Your task to perform on an android device: Clear the shopping cart on ebay.com. Search for "logitech g933" on ebay.com, select the first entry, and add it to the cart. Image 0: 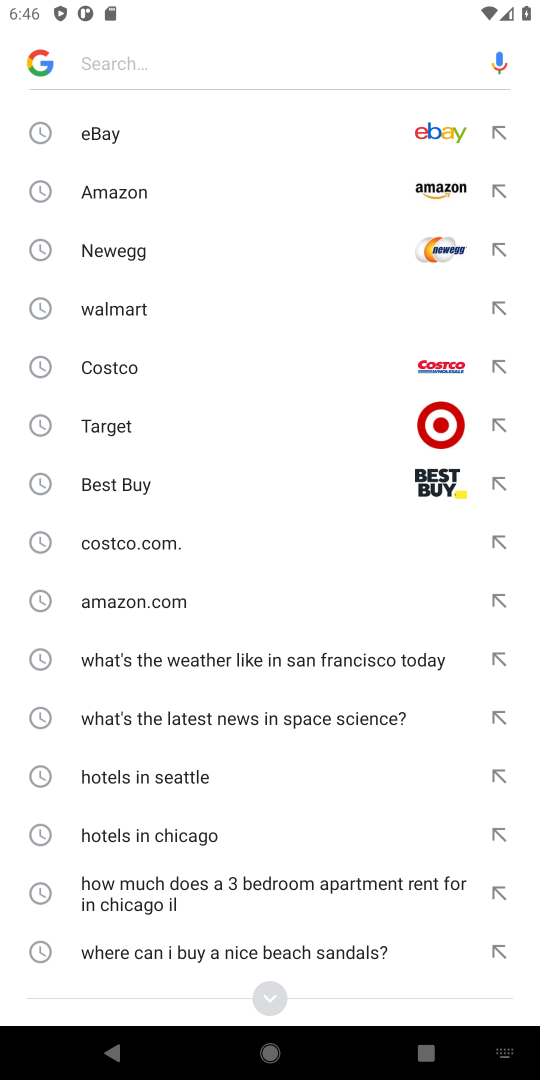
Step 0: click (99, 139)
Your task to perform on an android device: Clear the shopping cart on ebay.com. Search for "logitech g933" on ebay.com, select the first entry, and add it to the cart. Image 1: 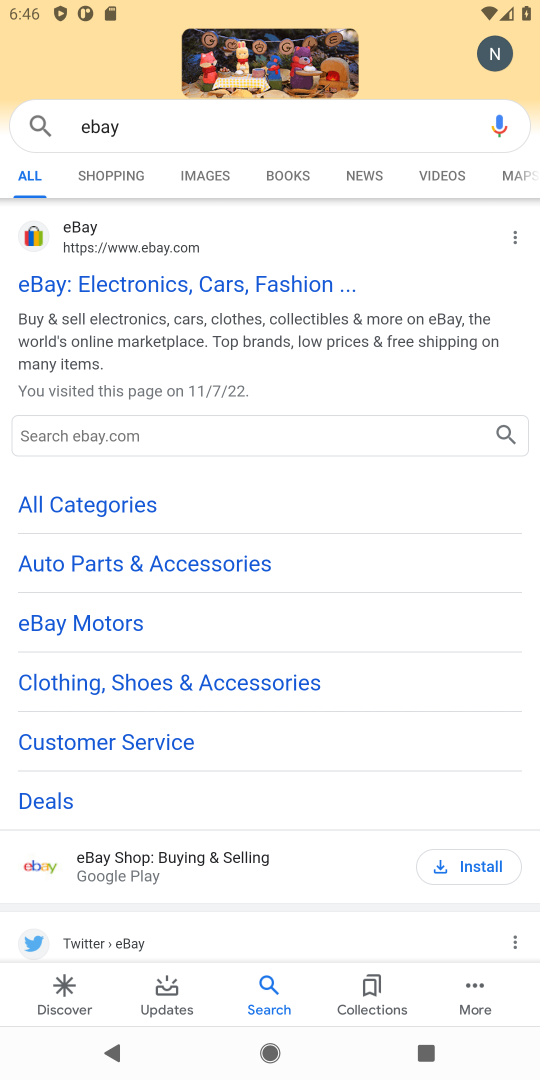
Step 1: click (103, 287)
Your task to perform on an android device: Clear the shopping cart on ebay.com. Search for "logitech g933" on ebay.com, select the first entry, and add it to the cart. Image 2: 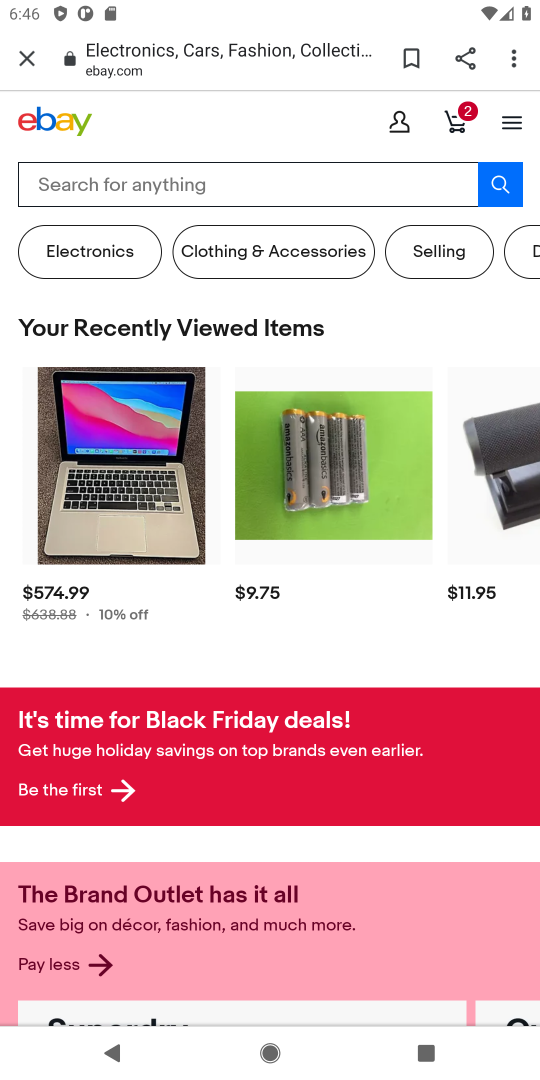
Step 2: click (452, 124)
Your task to perform on an android device: Clear the shopping cart on ebay.com. Search for "logitech g933" on ebay.com, select the first entry, and add it to the cart. Image 3: 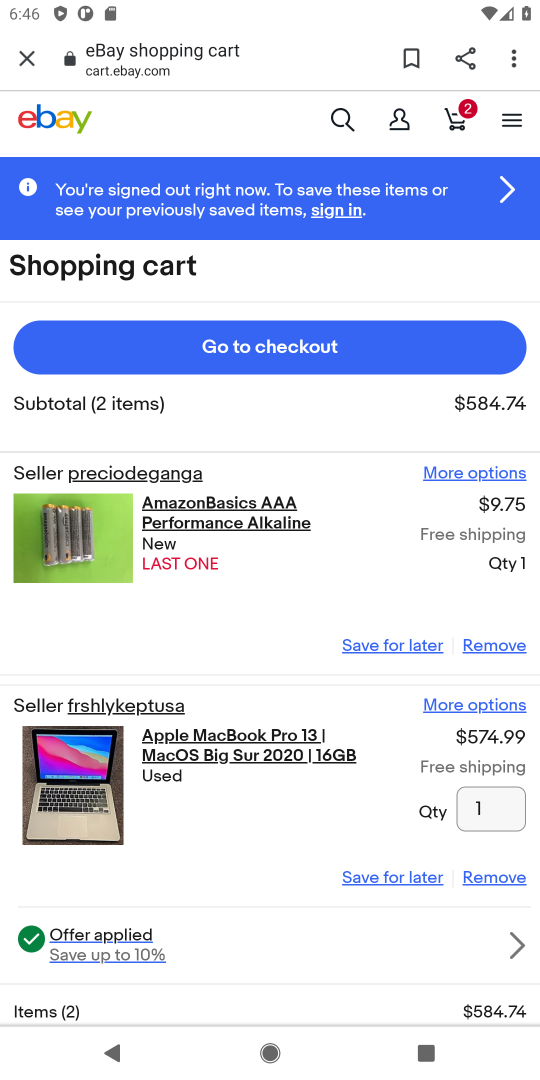
Step 3: click (477, 648)
Your task to perform on an android device: Clear the shopping cart on ebay.com. Search for "logitech g933" on ebay.com, select the first entry, and add it to the cart. Image 4: 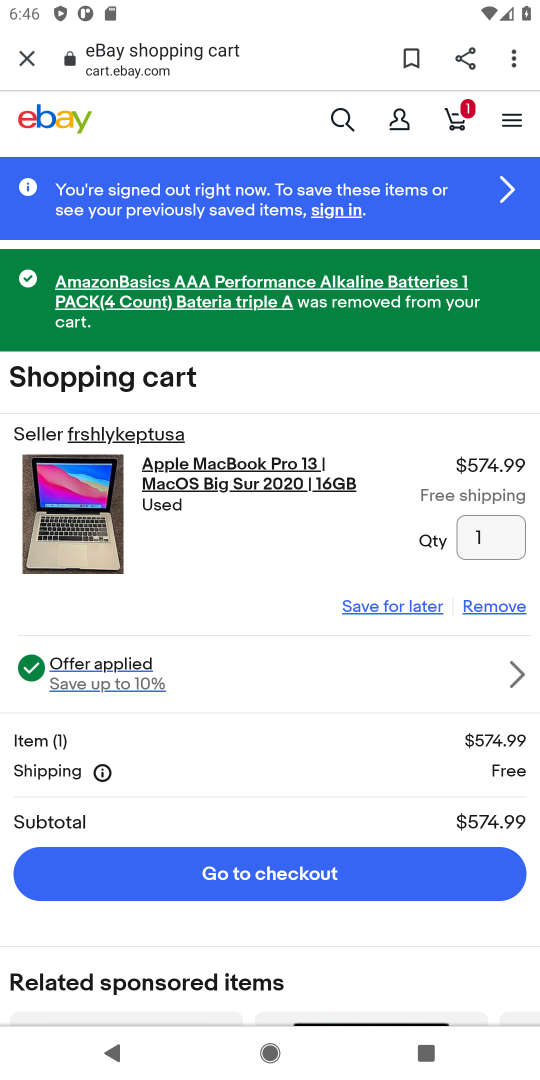
Step 4: click (477, 608)
Your task to perform on an android device: Clear the shopping cart on ebay.com. Search for "logitech g933" on ebay.com, select the first entry, and add it to the cart. Image 5: 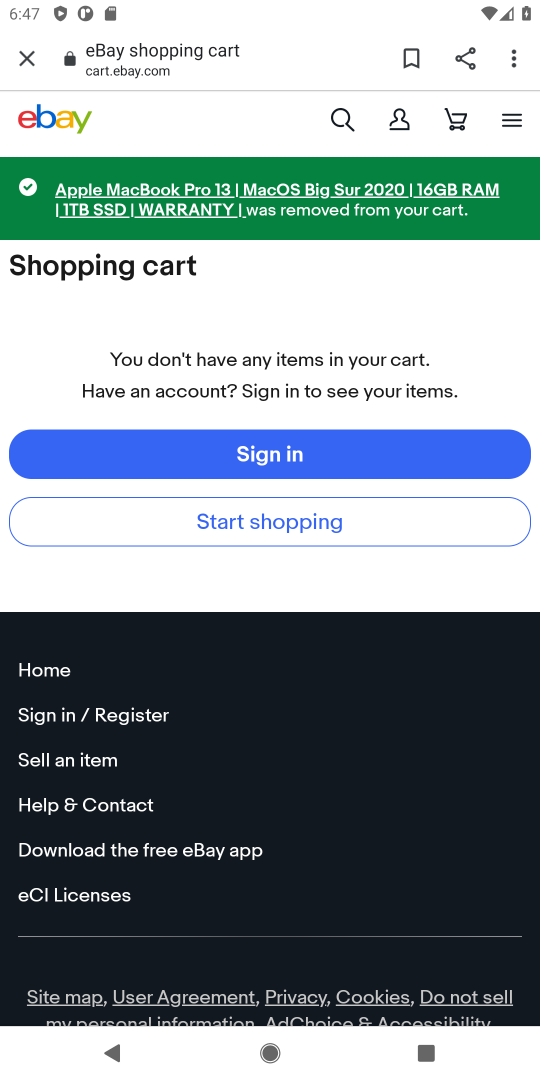
Step 5: click (335, 114)
Your task to perform on an android device: Clear the shopping cart on ebay.com. Search for "logitech g933" on ebay.com, select the first entry, and add it to the cart. Image 6: 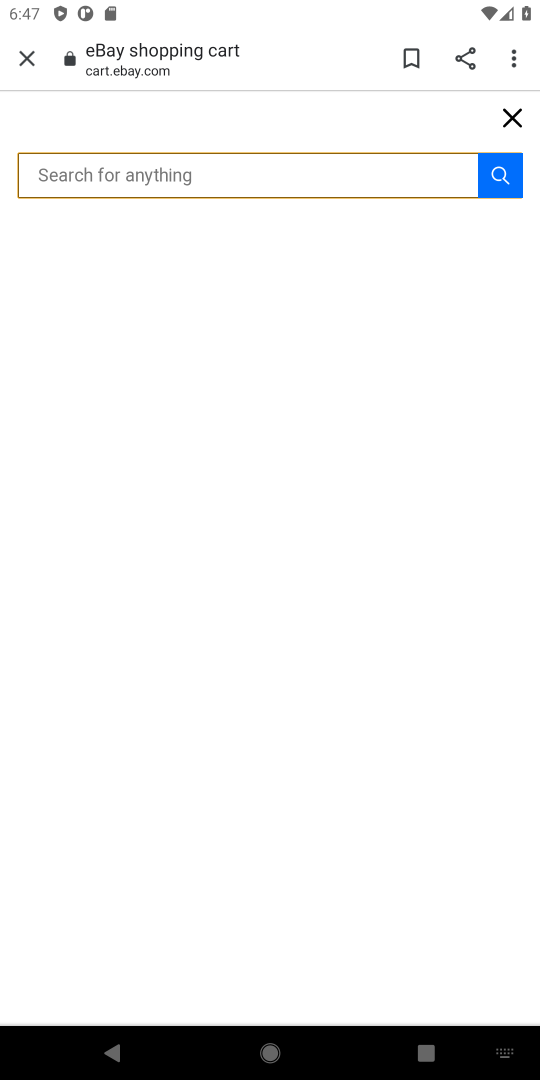
Step 6: type "logitech g933"
Your task to perform on an android device: Clear the shopping cart on ebay.com. Search for "logitech g933" on ebay.com, select the first entry, and add it to the cart. Image 7: 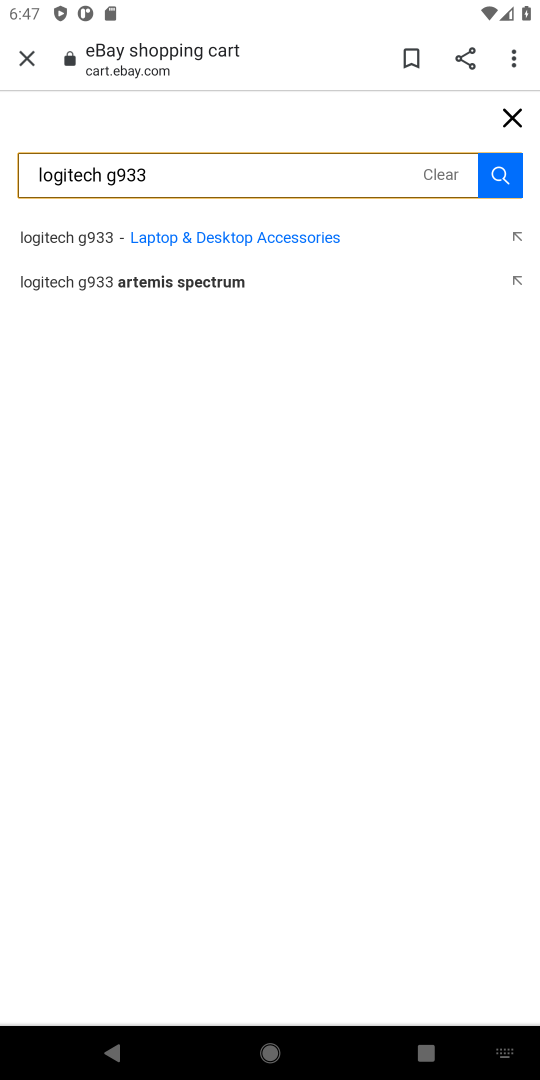
Step 7: click (62, 239)
Your task to perform on an android device: Clear the shopping cart on ebay.com. Search for "logitech g933" on ebay.com, select the first entry, and add it to the cart. Image 8: 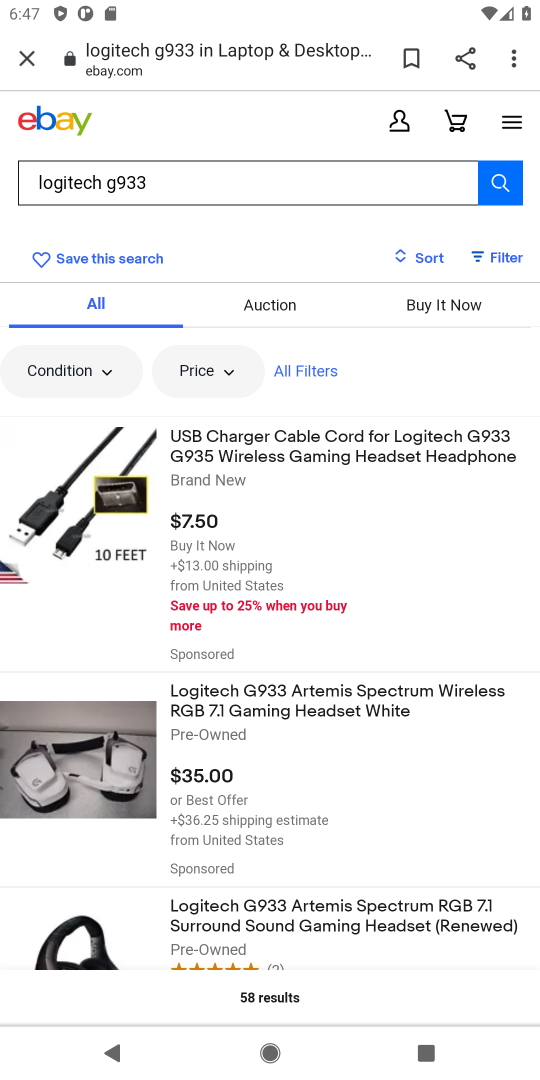
Step 8: click (122, 536)
Your task to perform on an android device: Clear the shopping cart on ebay.com. Search for "logitech g933" on ebay.com, select the first entry, and add it to the cart. Image 9: 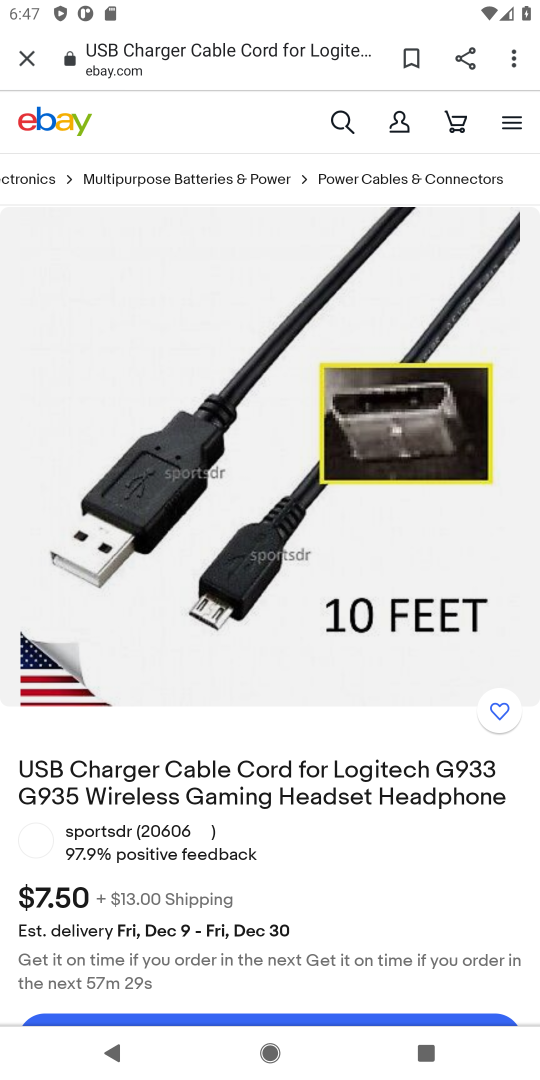
Step 9: drag from (194, 727) to (147, 406)
Your task to perform on an android device: Clear the shopping cart on ebay.com. Search for "logitech g933" on ebay.com, select the first entry, and add it to the cart. Image 10: 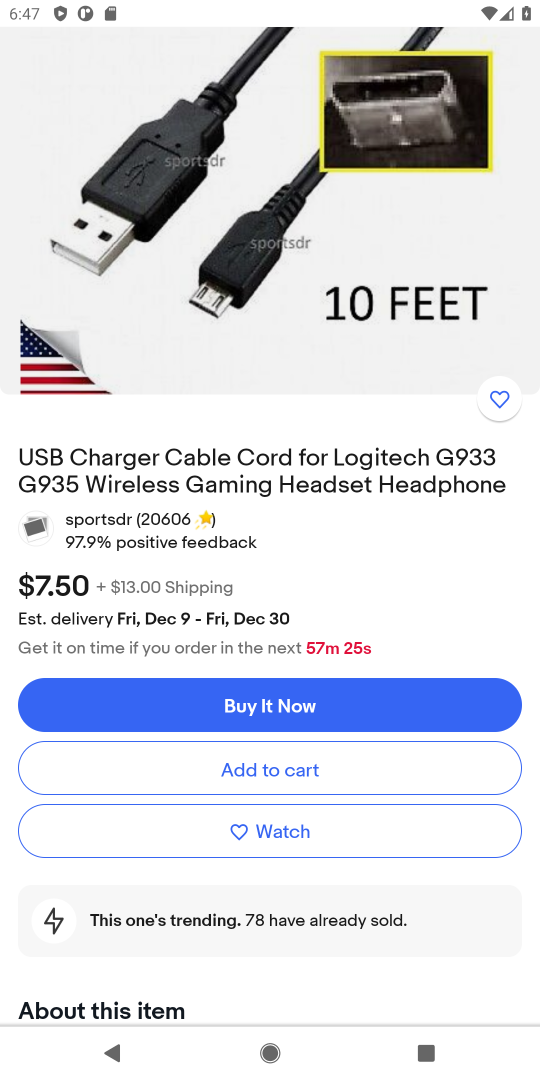
Step 10: click (235, 771)
Your task to perform on an android device: Clear the shopping cart on ebay.com. Search for "logitech g933" on ebay.com, select the first entry, and add it to the cart. Image 11: 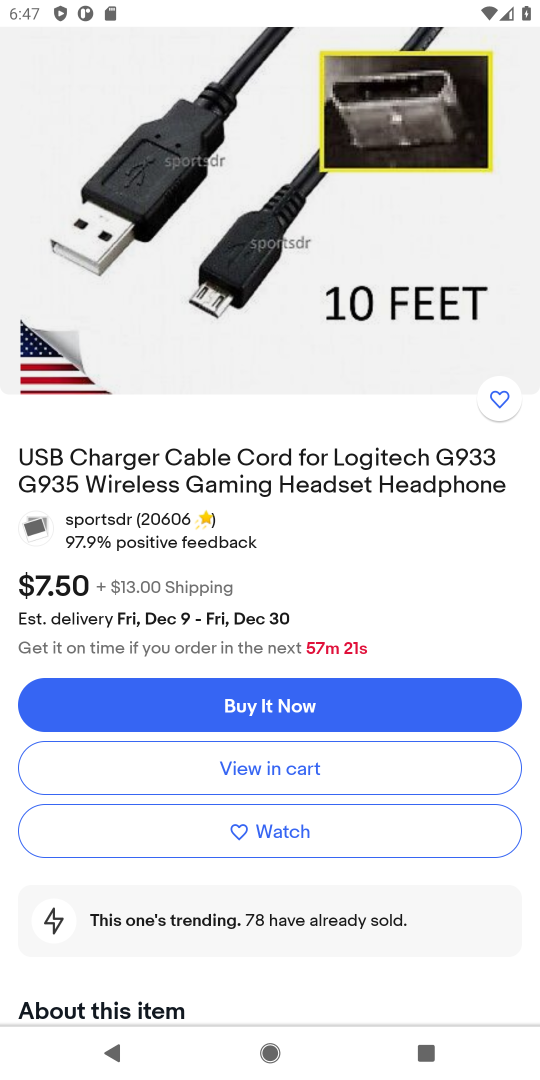
Step 11: task complete